Your task to perform on an android device: What's the weather going to be this weekend? Image 0: 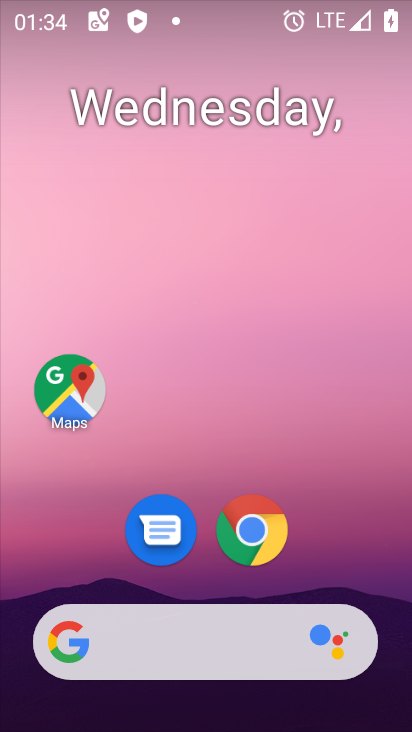
Step 0: drag from (329, 563) to (337, 147)
Your task to perform on an android device: What's the weather going to be this weekend? Image 1: 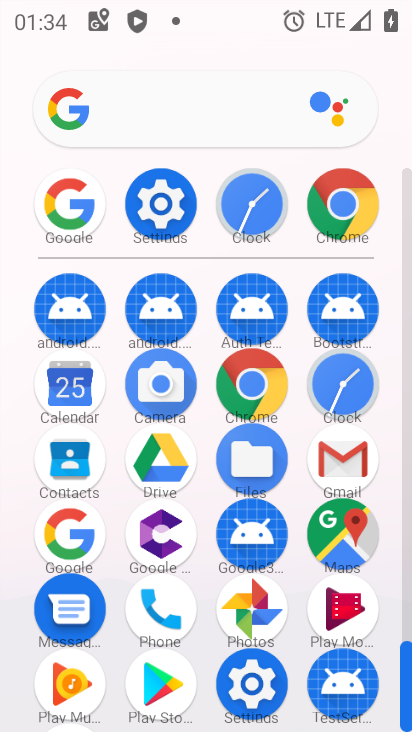
Step 1: click (245, 385)
Your task to perform on an android device: What's the weather going to be this weekend? Image 2: 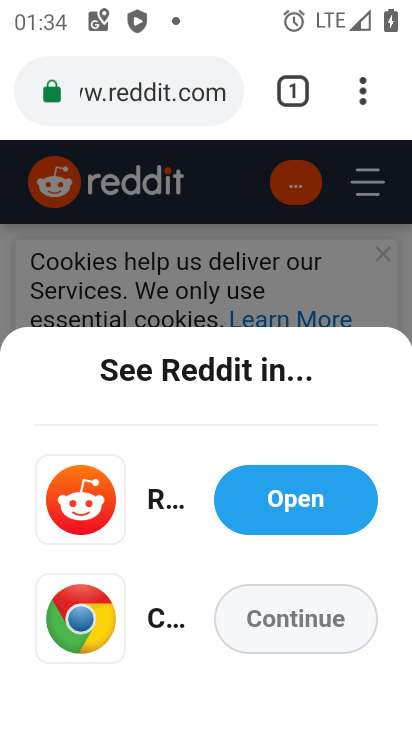
Step 2: click (178, 105)
Your task to perform on an android device: What's the weather going to be this weekend? Image 3: 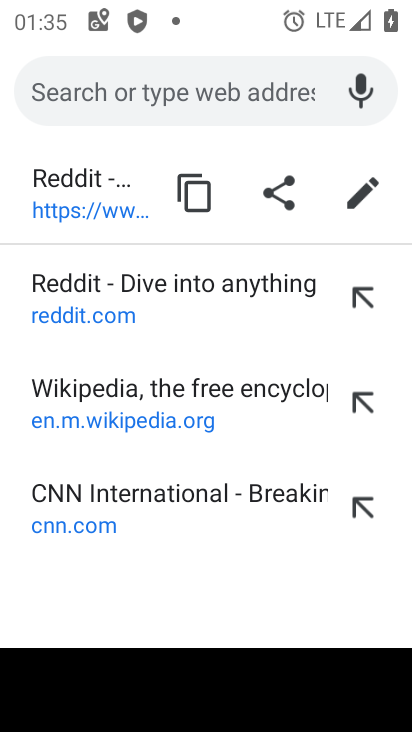
Step 3: type "what's the weather going to be this weekend"
Your task to perform on an android device: What's the weather going to be this weekend? Image 4: 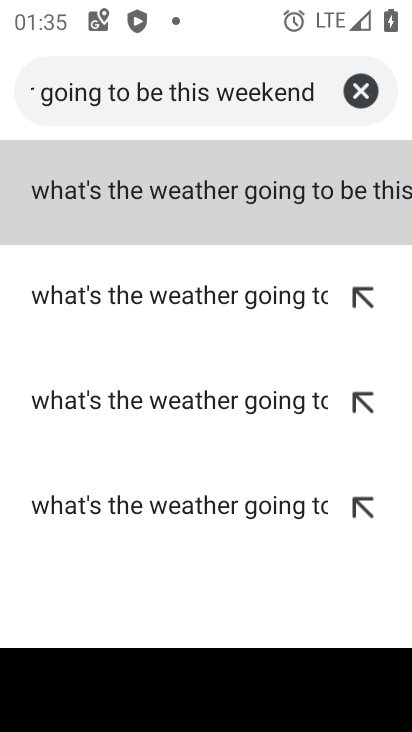
Step 4: click (268, 207)
Your task to perform on an android device: What's the weather going to be this weekend? Image 5: 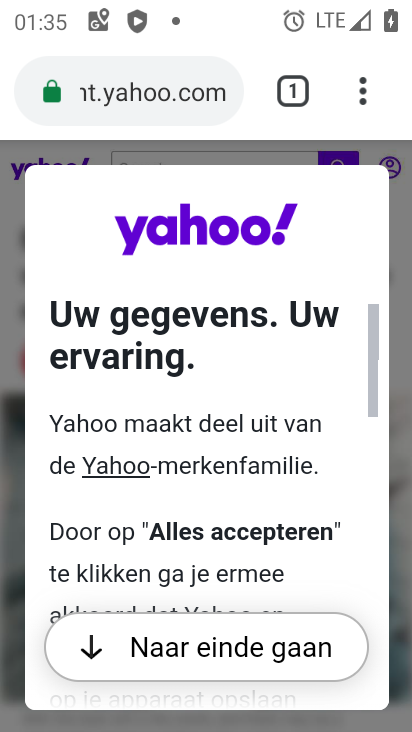
Step 5: task complete